Your task to perform on an android device: make emails show in primary in the gmail app Image 0: 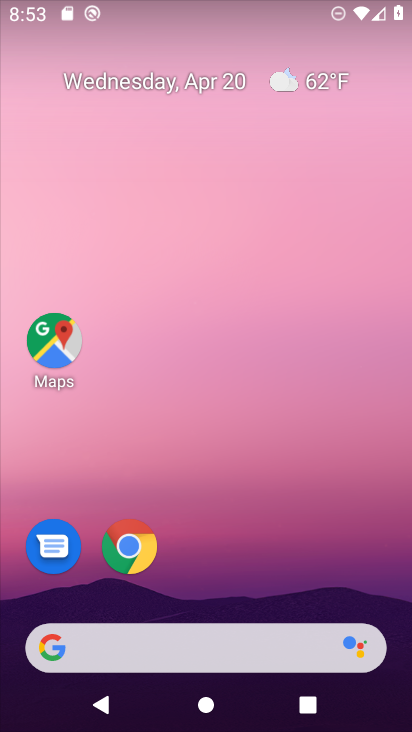
Step 0: drag from (309, 515) to (308, 102)
Your task to perform on an android device: make emails show in primary in the gmail app Image 1: 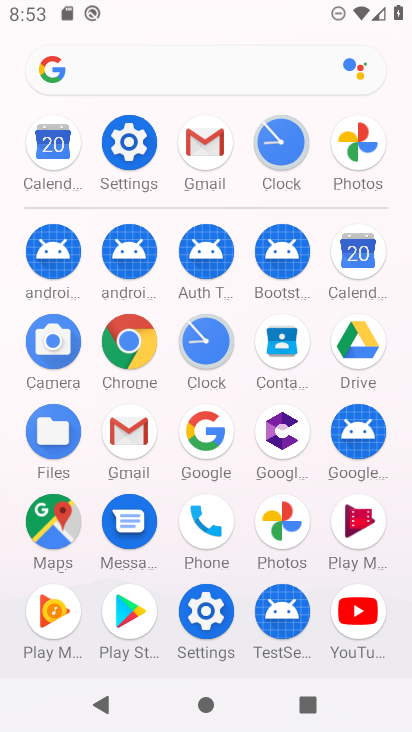
Step 1: click (208, 147)
Your task to perform on an android device: make emails show in primary in the gmail app Image 2: 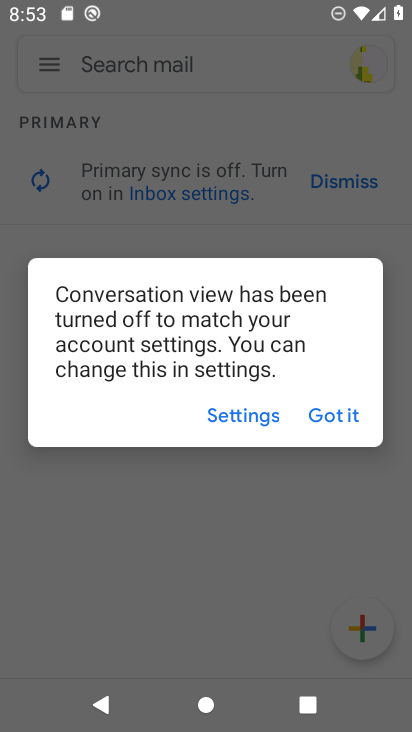
Step 2: click (340, 409)
Your task to perform on an android device: make emails show in primary in the gmail app Image 3: 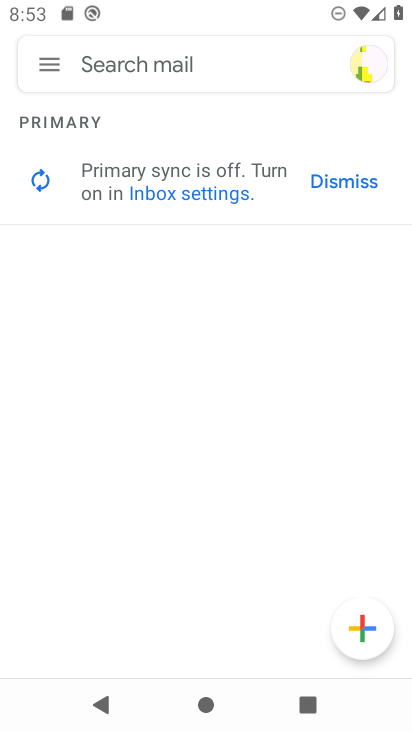
Step 3: click (52, 59)
Your task to perform on an android device: make emails show in primary in the gmail app Image 4: 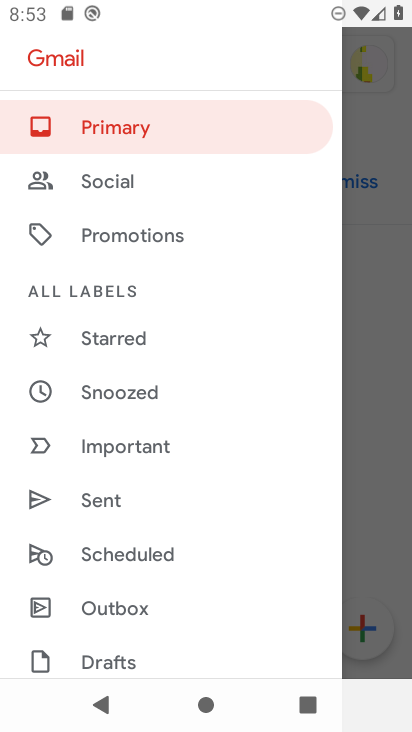
Step 4: drag from (186, 614) to (190, 208)
Your task to perform on an android device: make emails show in primary in the gmail app Image 5: 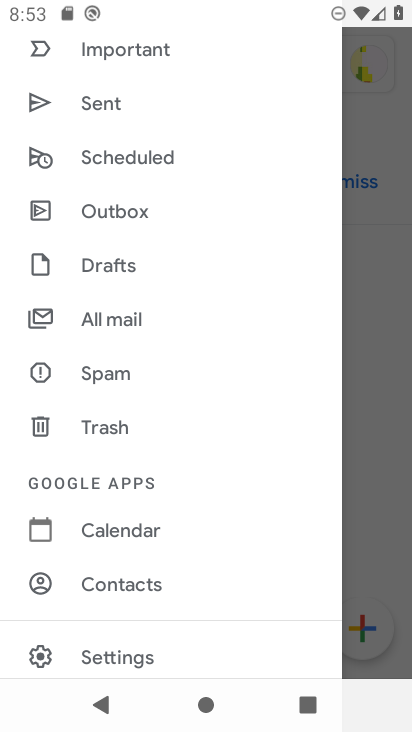
Step 5: click (132, 651)
Your task to perform on an android device: make emails show in primary in the gmail app Image 6: 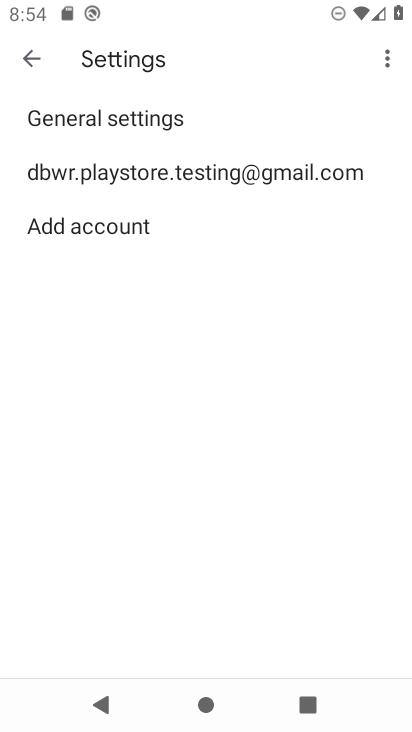
Step 6: click (141, 166)
Your task to perform on an android device: make emails show in primary in the gmail app Image 7: 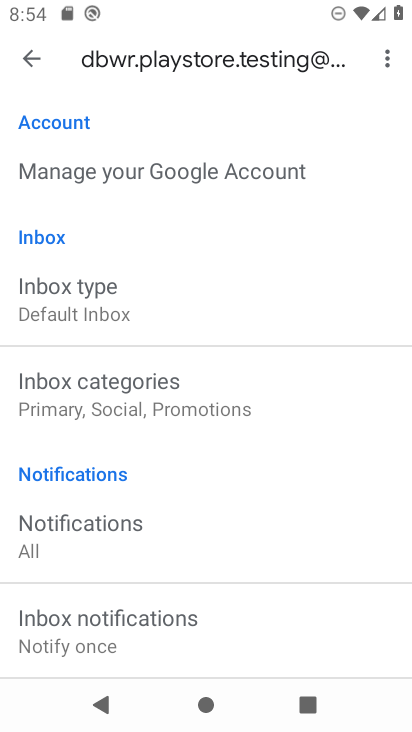
Step 7: click (100, 381)
Your task to perform on an android device: make emails show in primary in the gmail app Image 8: 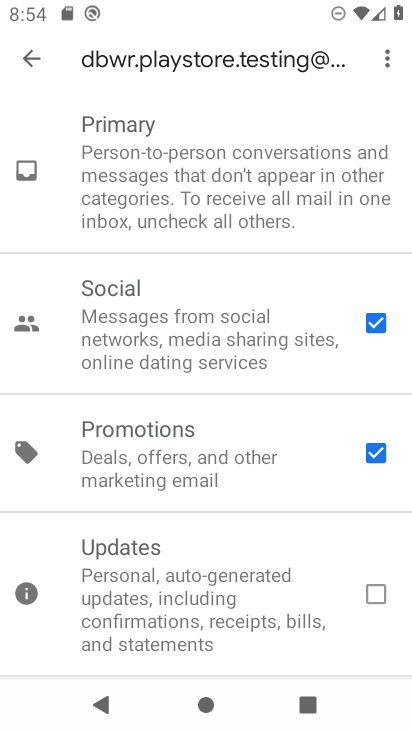
Step 8: click (374, 325)
Your task to perform on an android device: make emails show in primary in the gmail app Image 9: 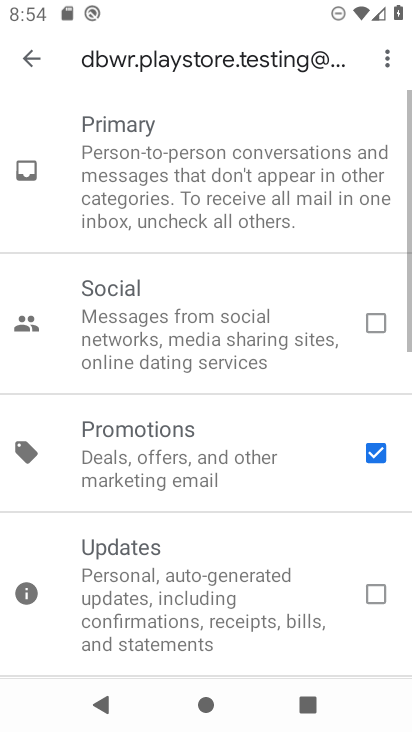
Step 9: click (378, 447)
Your task to perform on an android device: make emails show in primary in the gmail app Image 10: 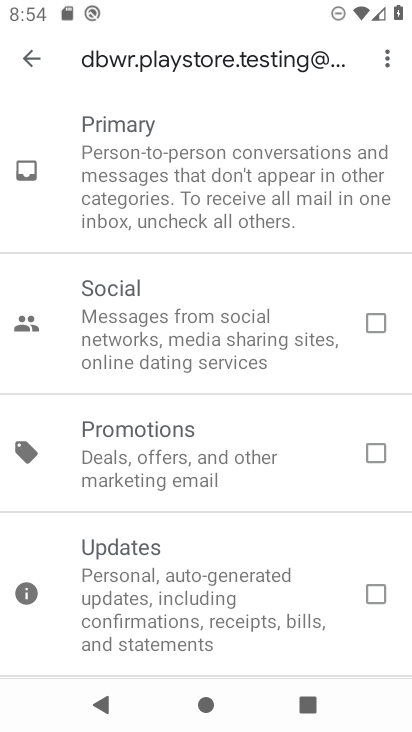
Step 10: click (31, 50)
Your task to perform on an android device: make emails show in primary in the gmail app Image 11: 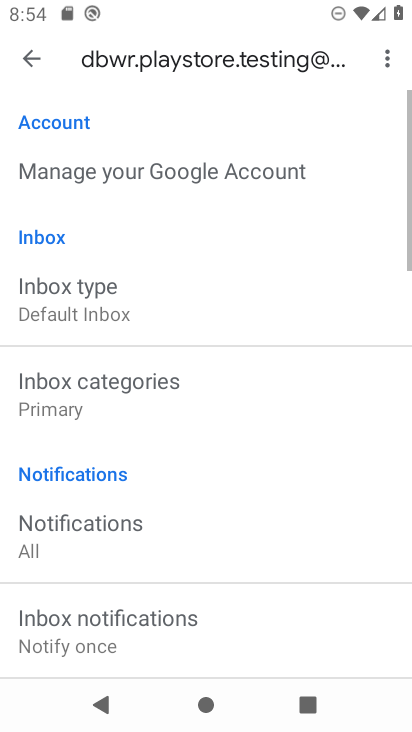
Step 11: click (31, 50)
Your task to perform on an android device: make emails show in primary in the gmail app Image 12: 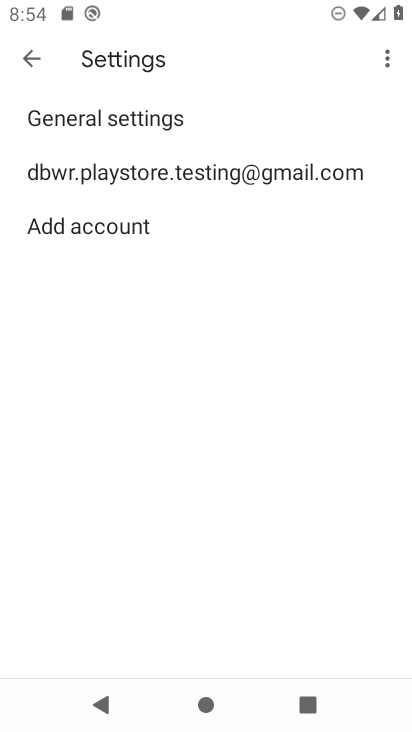
Step 12: click (31, 50)
Your task to perform on an android device: make emails show in primary in the gmail app Image 13: 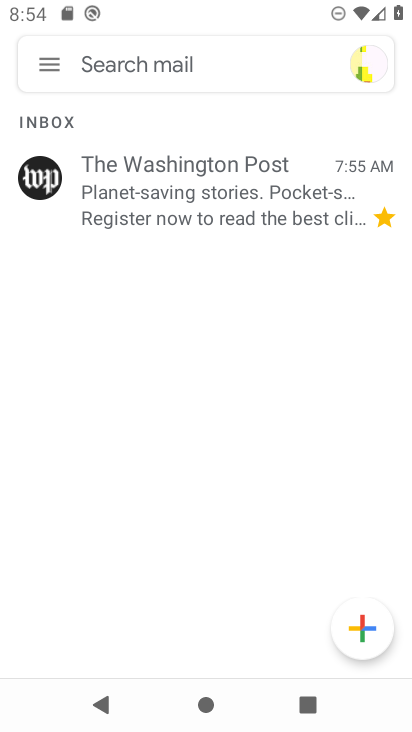
Step 13: click (53, 59)
Your task to perform on an android device: make emails show in primary in the gmail app Image 14: 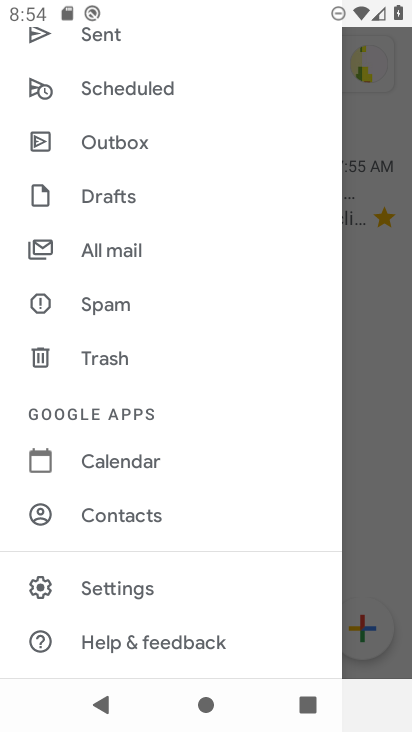
Step 14: drag from (166, 139) to (166, 633)
Your task to perform on an android device: make emails show in primary in the gmail app Image 15: 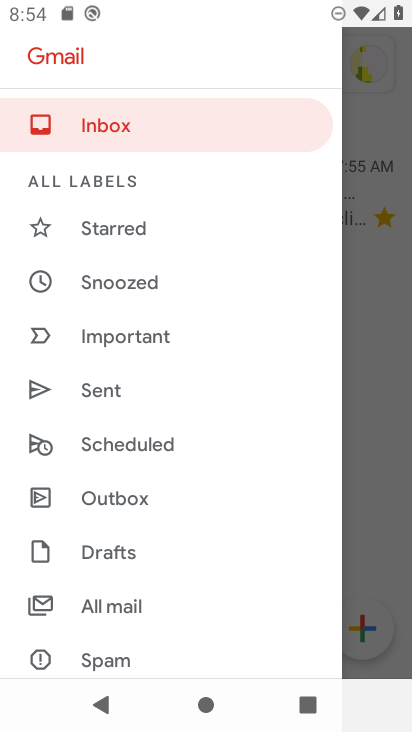
Step 15: click (383, 337)
Your task to perform on an android device: make emails show in primary in the gmail app Image 16: 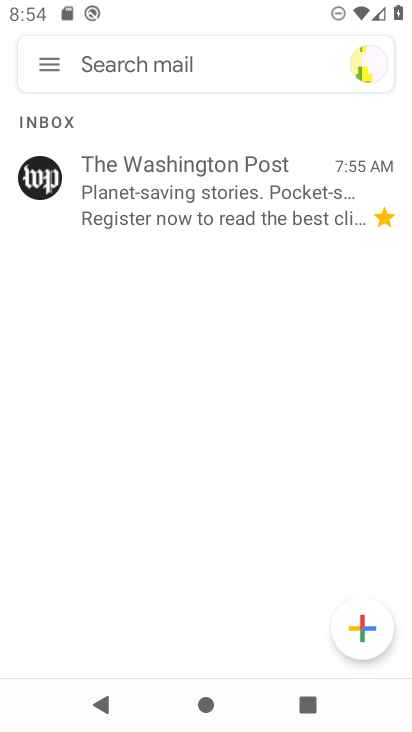
Step 16: task complete